Your task to perform on an android device: turn on improve location accuracy Image 0: 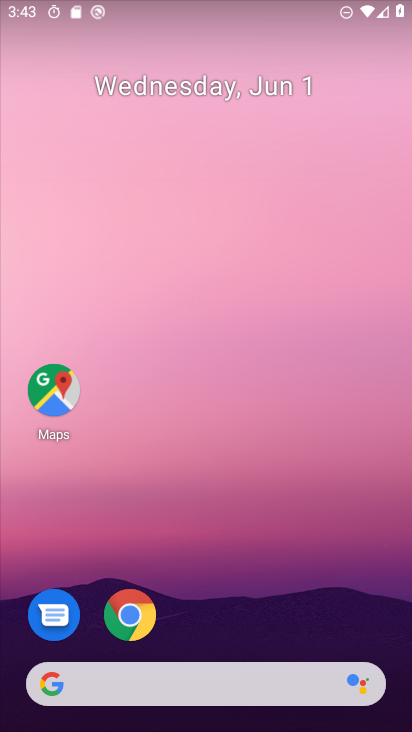
Step 0: drag from (221, 640) to (214, 16)
Your task to perform on an android device: turn on improve location accuracy Image 1: 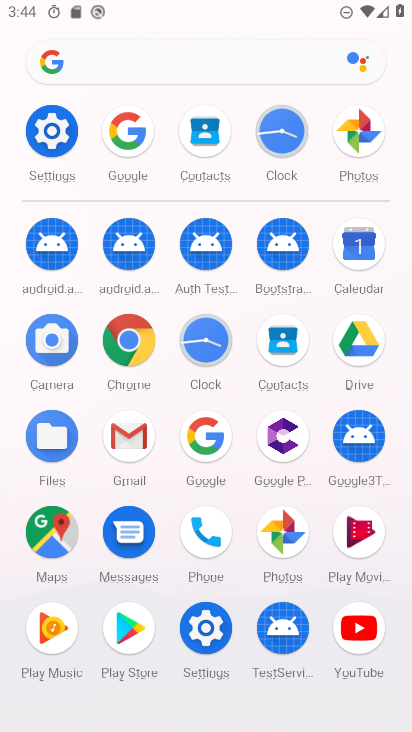
Step 1: click (201, 619)
Your task to perform on an android device: turn on improve location accuracy Image 2: 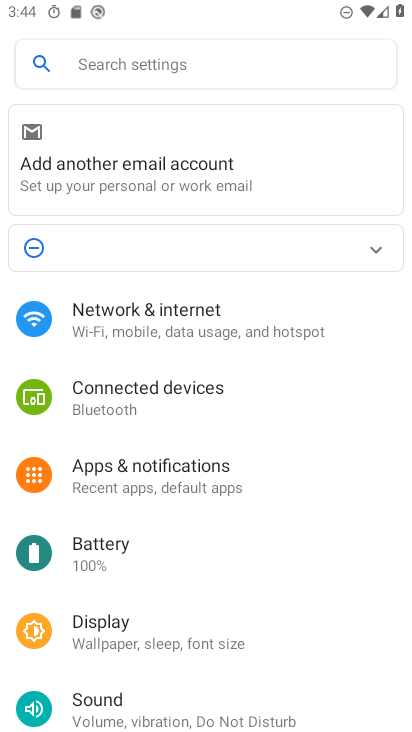
Step 2: drag from (232, 662) to (228, 300)
Your task to perform on an android device: turn on improve location accuracy Image 3: 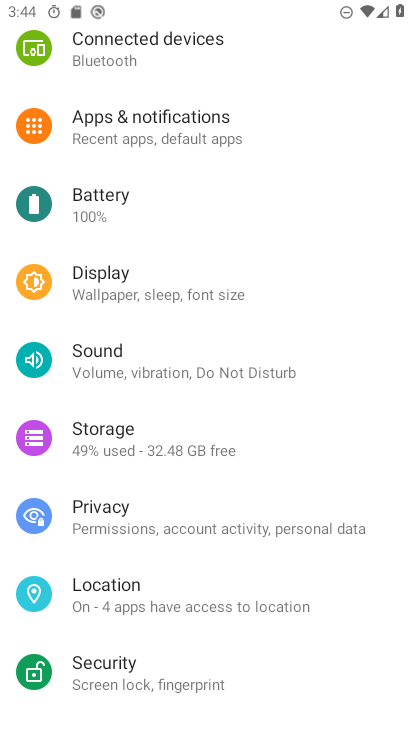
Step 3: click (158, 593)
Your task to perform on an android device: turn on improve location accuracy Image 4: 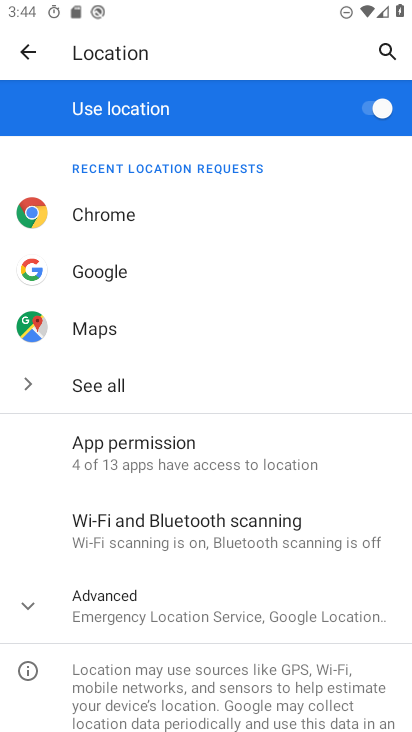
Step 4: click (121, 607)
Your task to perform on an android device: turn on improve location accuracy Image 5: 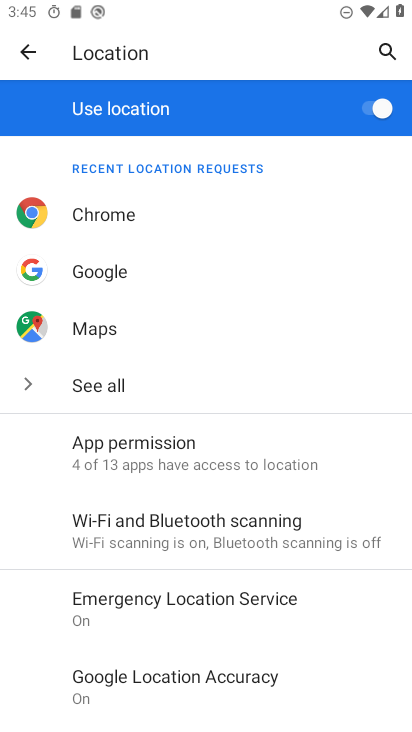
Step 5: click (171, 680)
Your task to perform on an android device: turn on improve location accuracy Image 6: 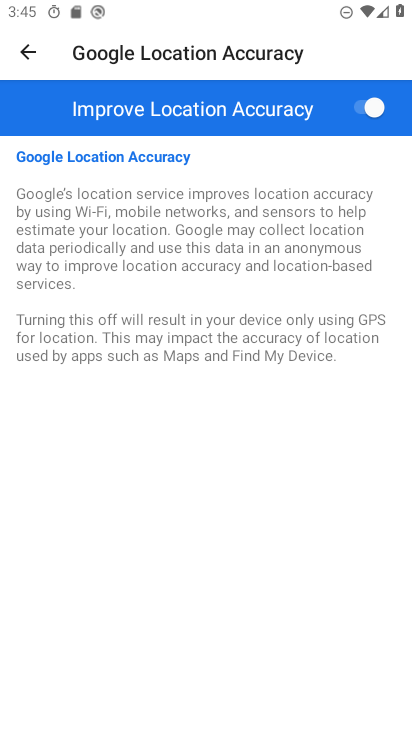
Step 6: task complete